Your task to perform on an android device: turn off location history Image 0: 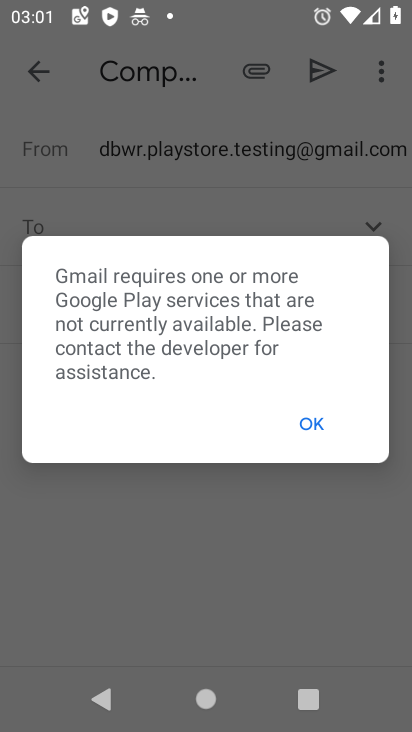
Step 0: click (322, 444)
Your task to perform on an android device: turn off location history Image 1: 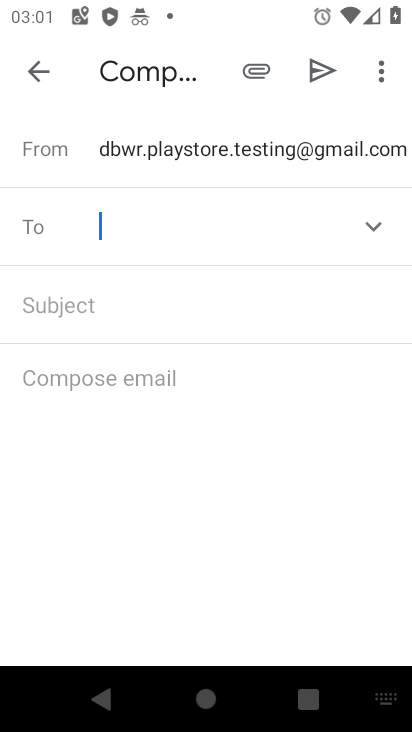
Step 1: press home button
Your task to perform on an android device: turn off location history Image 2: 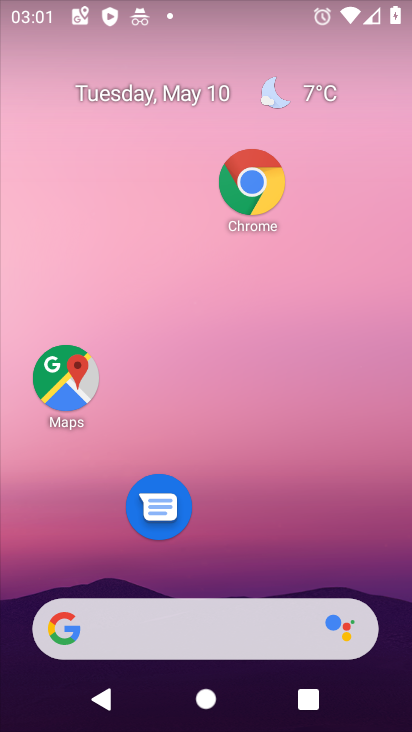
Step 2: drag from (341, 539) to (318, 226)
Your task to perform on an android device: turn off location history Image 3: 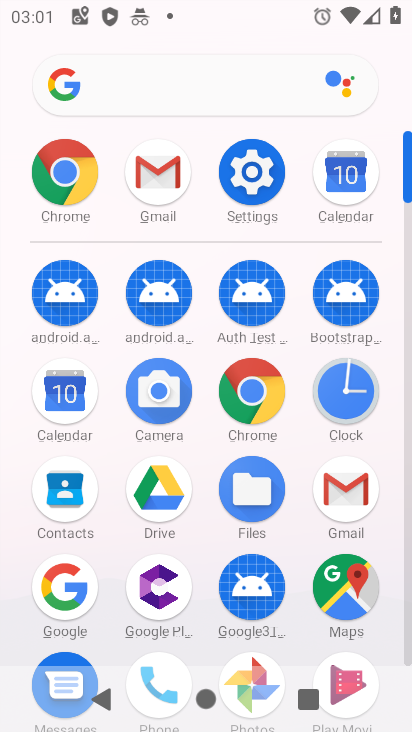
Step 3: click (253, 180)
Your task to perform on an android device: turn off location history Image 4: 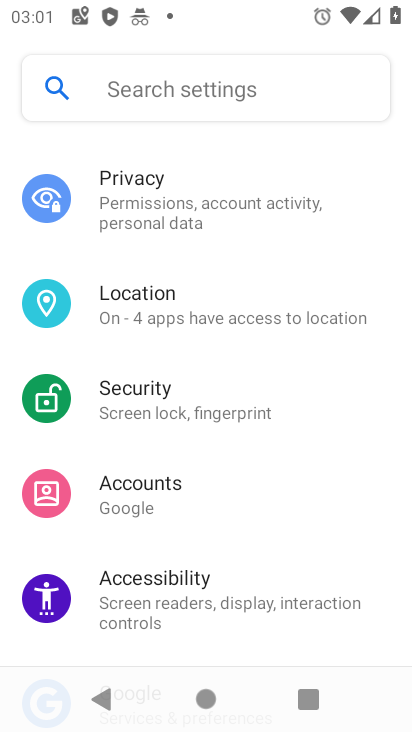
Step 4: click (253, 321)
Your task to perform on an android device: turn off location history Image 5: 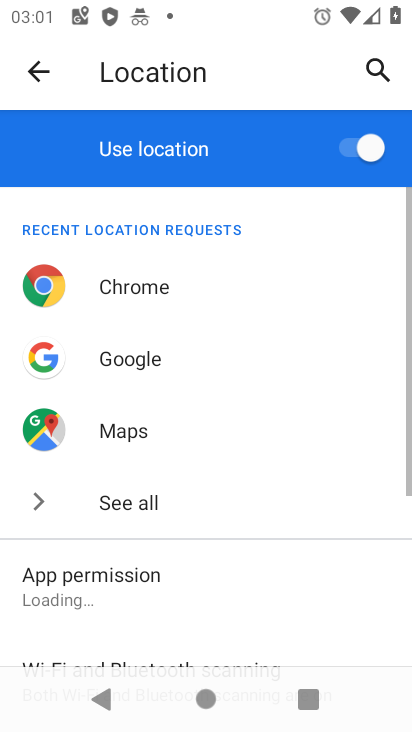
Step 5: drag from (227, 502) to (205, 219)
Your task to perform on an android device: turn off location history Image 6: 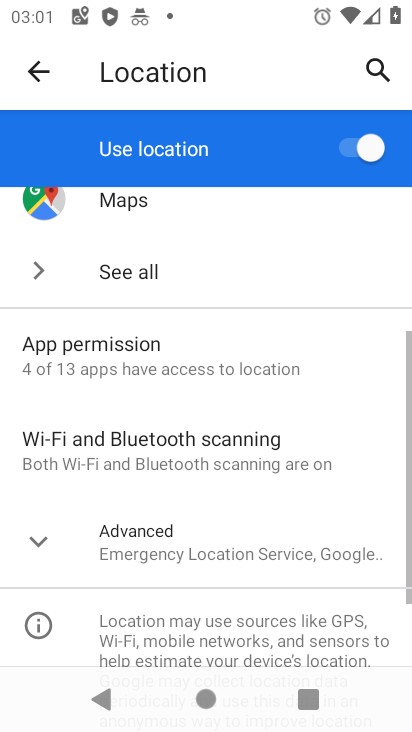
Step 6: drag from (200, 393) to (182, 252)
Your task to perform on an android device: turn off location history Image 7: 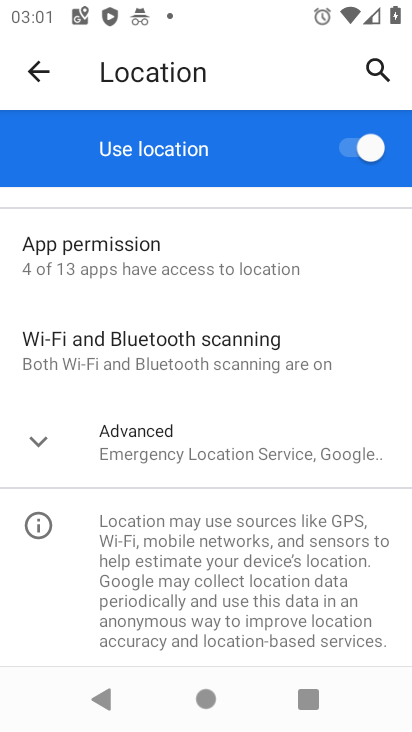
Step 7: click (158, 432)
Your task to perform on an android device: turn off location history Image 8: 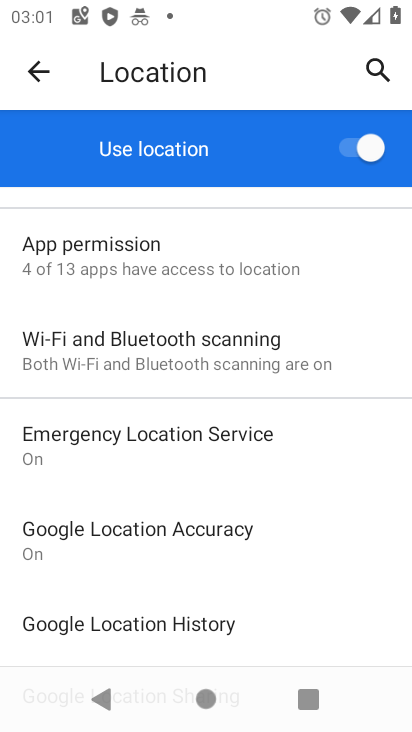
Step 8: click (138, 610)
Your task to perform on an android device: turn off location history Image 9: 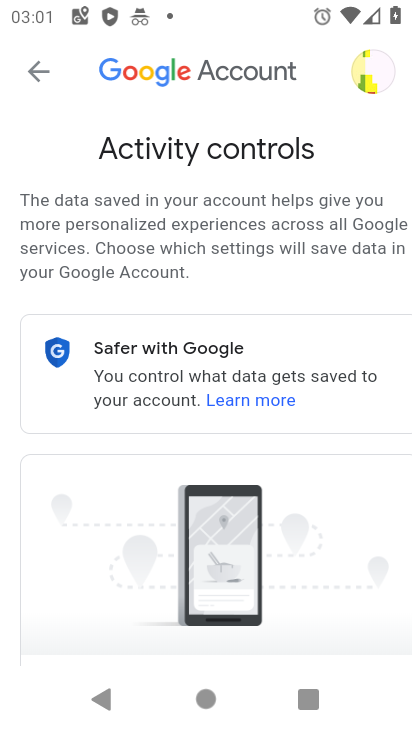
Step 9: drag from (146, 535) to (120, 195)
Your task to perform on an android device: turn off location history Image 10: 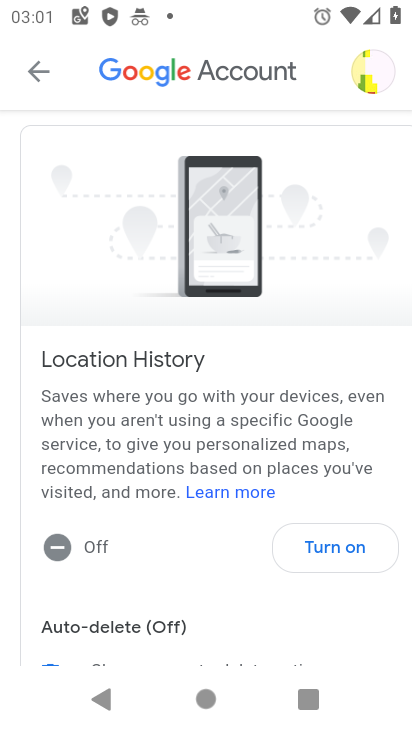
Step 10: click (98, 553)
Your task to perform on an android device: turn off location history Image 11: 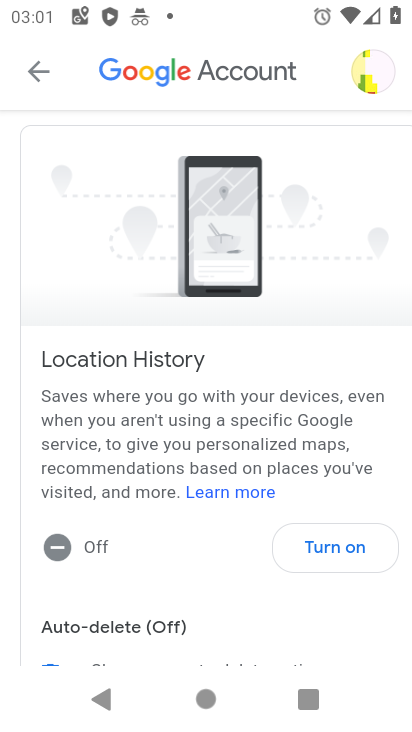
Step 11: task complete